Your task to perform on an android device: turn off airplane mode Image 0: 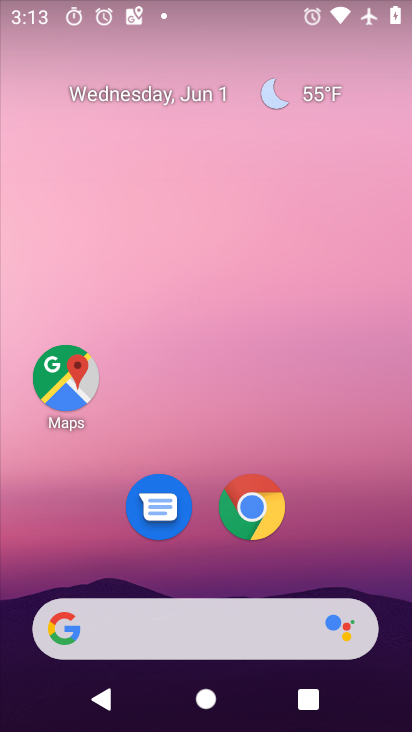
Step 0: drag from (337, 591) to (329, 3)
Your task to perform on an android device: turn off airplane mode Image 1: 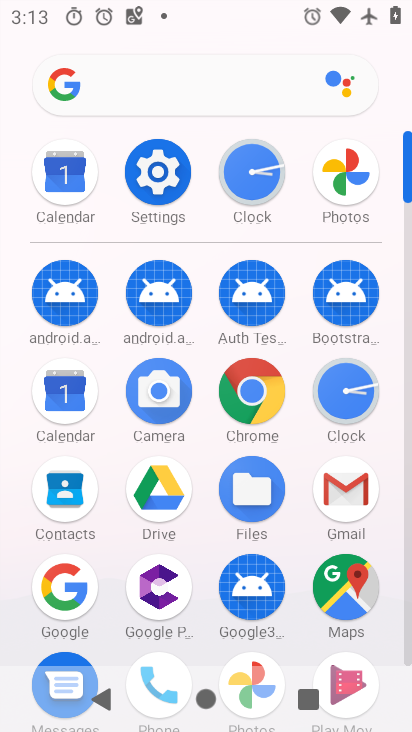
Step 1: click (157, 191)
Your task to perform on an android device: turn off airplane mode Image 2: 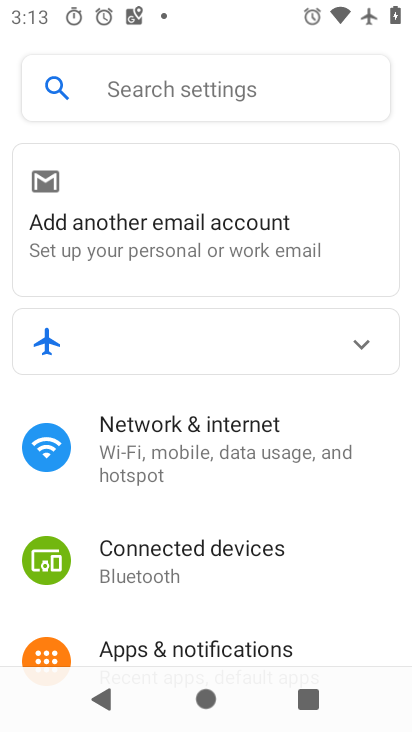
Step 2: click (199, 449)
Your task to perform on an android device: turn off airplane mode Image 3: 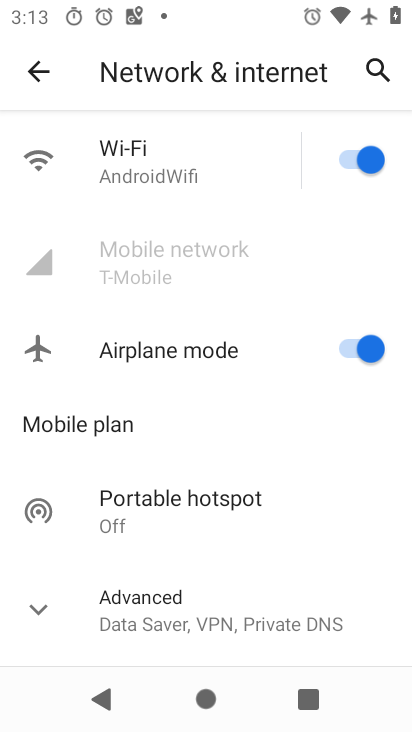
Step 3: click (360, 342)
Your task to perform on an android device: turn off airplane mode Image 4: 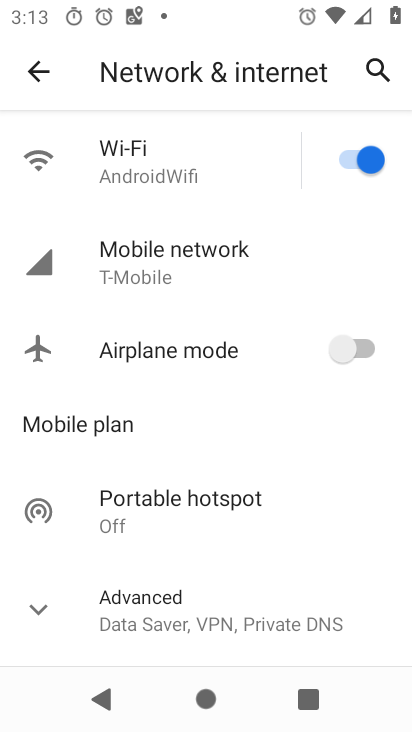
Step 4: task complete